Your task to perform on an android device: Go to Yahoo.com Image 0: 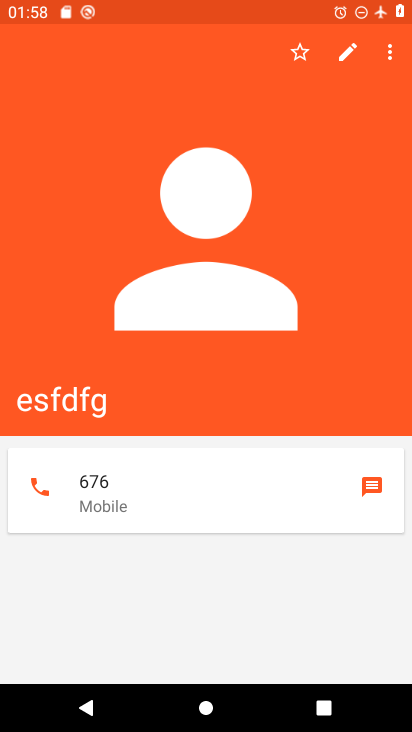
Step 0: press home button
Your task to perform on an android device: Go to Yahoo.com Image 1: 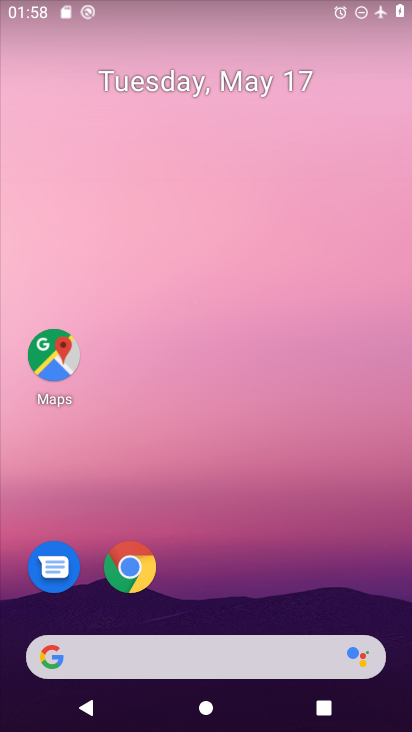
Step 1: drag from (250, 556) to (157, 75)
Your task to perform on an android device: Go to Yahoo.com Image 2: 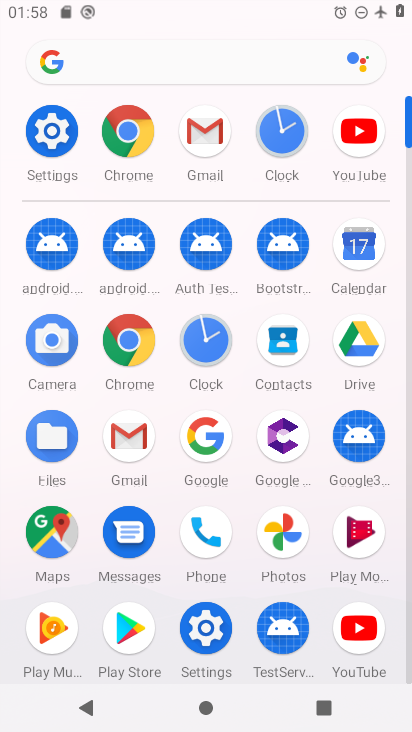
Step 2: click (125, 140)
Your task to perform on an android device: Go to Yahoo.com Image 3: 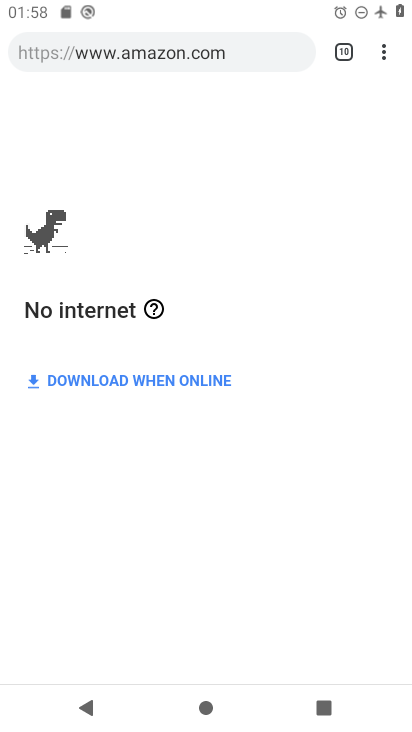
Step 3: click (384, 40)
Your task to perform on an android device: Go to Yahoo.com Image 4: 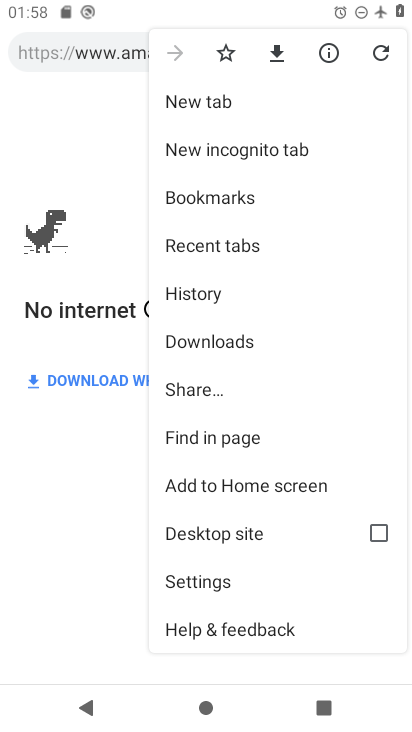
Step 4: click (206, 102)
Your task to perform on an android device: Go to Yahoo.com Image 5: 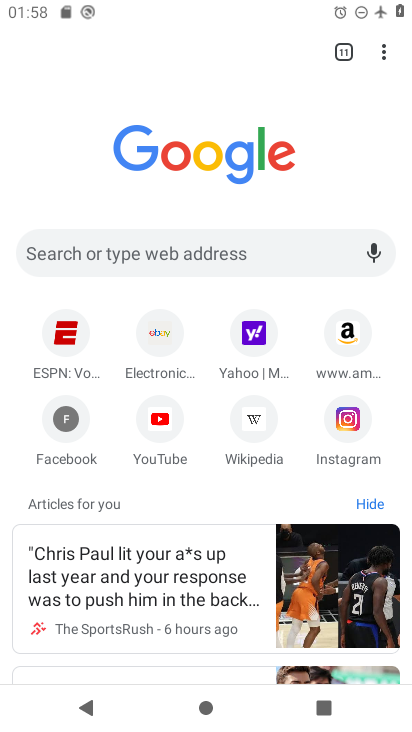
Step 5: click (254, 335)
Your task to perform on an android device: Go to Yahoo.com Image 6: 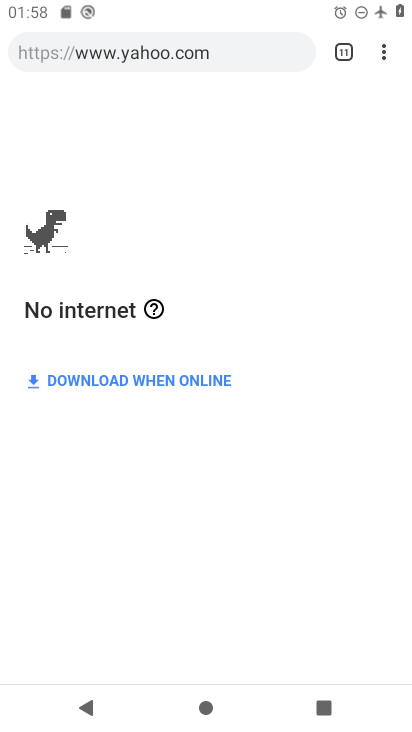
Step 6: task complete